Your task to perform on an android device: Is it going to rain this weekend? Image 0: 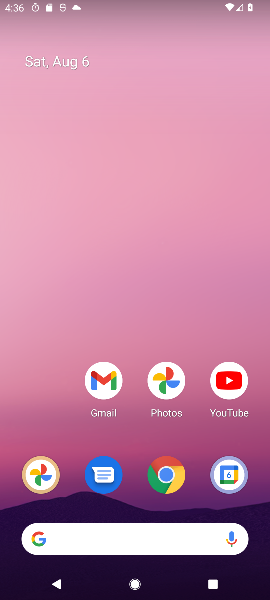
Step 0: click (97, 532)
Your task to perform on an android device: Is it going to rain this weekend? Image 1: 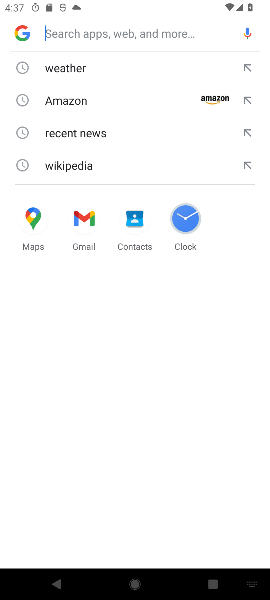
Step 1: type "Is it going to rain this weekend?"
Your task to perform on an android device: Is it going to rain this weekend? Image 2: 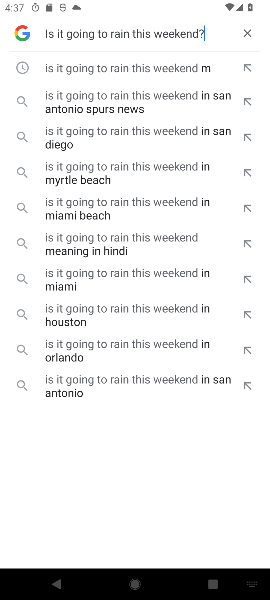
Step 2: type ""
Your task to perform on an android device: Is it going to rain this weekend? Image 3: 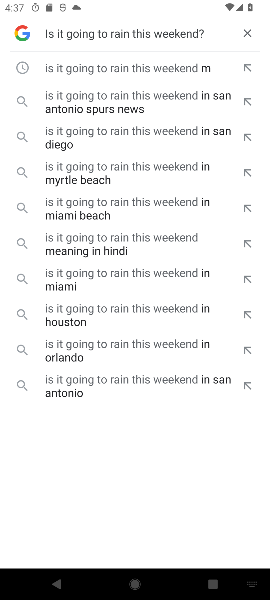
Step 3: type ""
Your task to perform on an android device: Is it going to rain this weekend? Image 4: 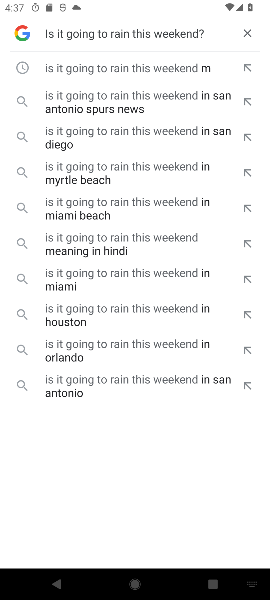
Step 4: task complete